Your task to perform on an android device: Go to privacy settings Image 0: 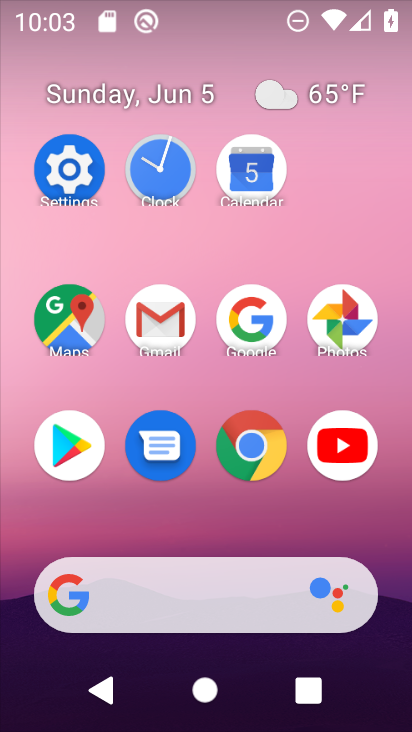
Step 0: click (65, 154)
Your task to perform on an android device: Go to privacy settings Image 1: 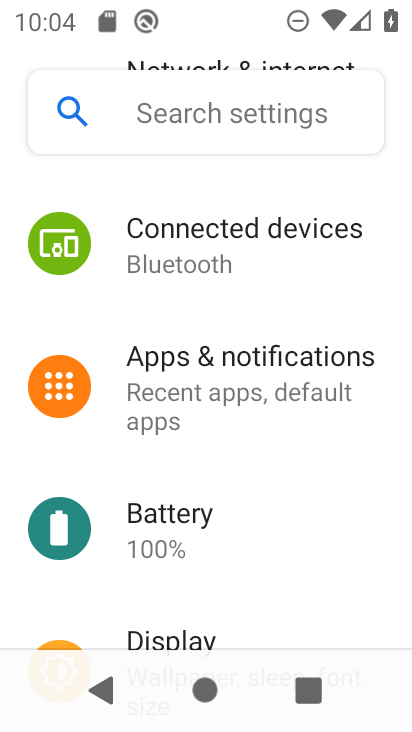
Step 1: click (301, 260)
Your task to perform on an android device: Go to privacy settings Image 2: 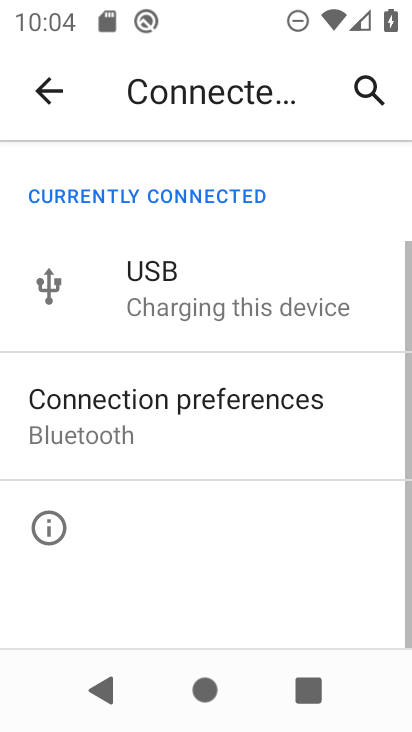
Step 2: click (36, 89)
Your task to perform on an android device: Go to privacy settings Image 3: 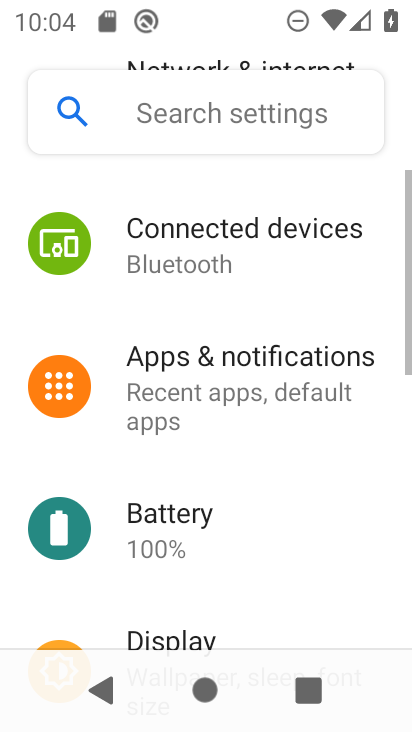
Step 3: drag from (259, 543) to (257, 182)
Your task to perform on an android device: Go to privacy settings Image 4: 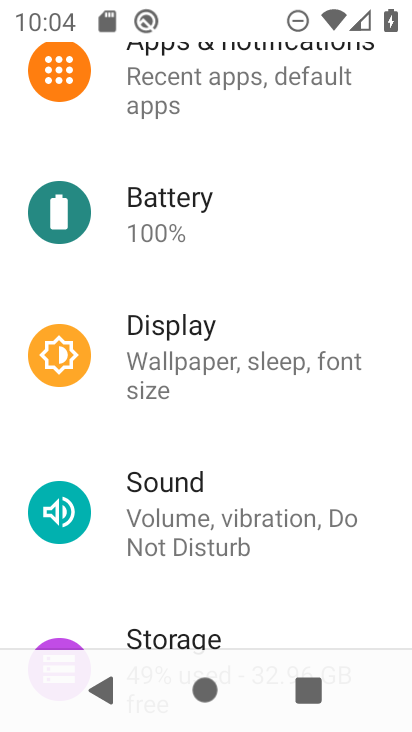
Step 4: drag from (296, 538) to (295, 140)
Your task to perform on an android device: Go to privacy settings Image 5: 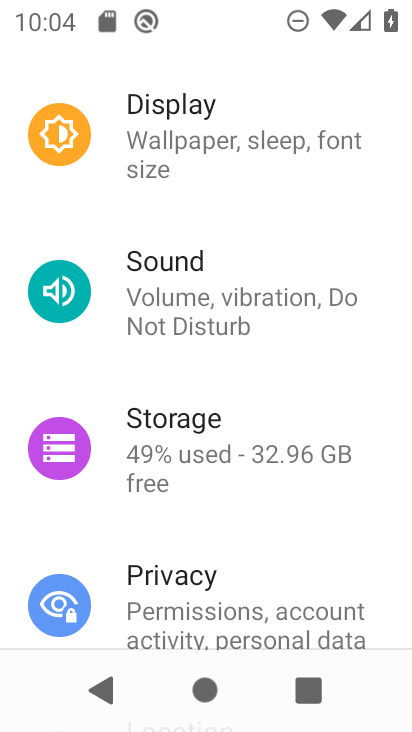
Step 5: click (255, 595)
Your task to perform on an android device: Go to privacy settings Image 6: 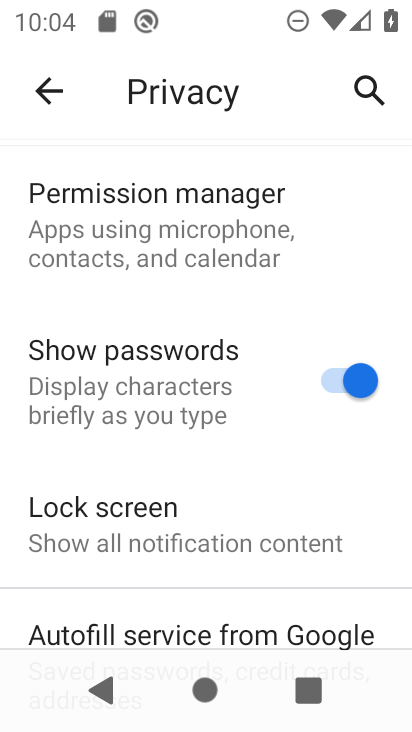
Step 6: task complete